Your task to perform on an android device: Do I have any events tomorrow? Image 0: 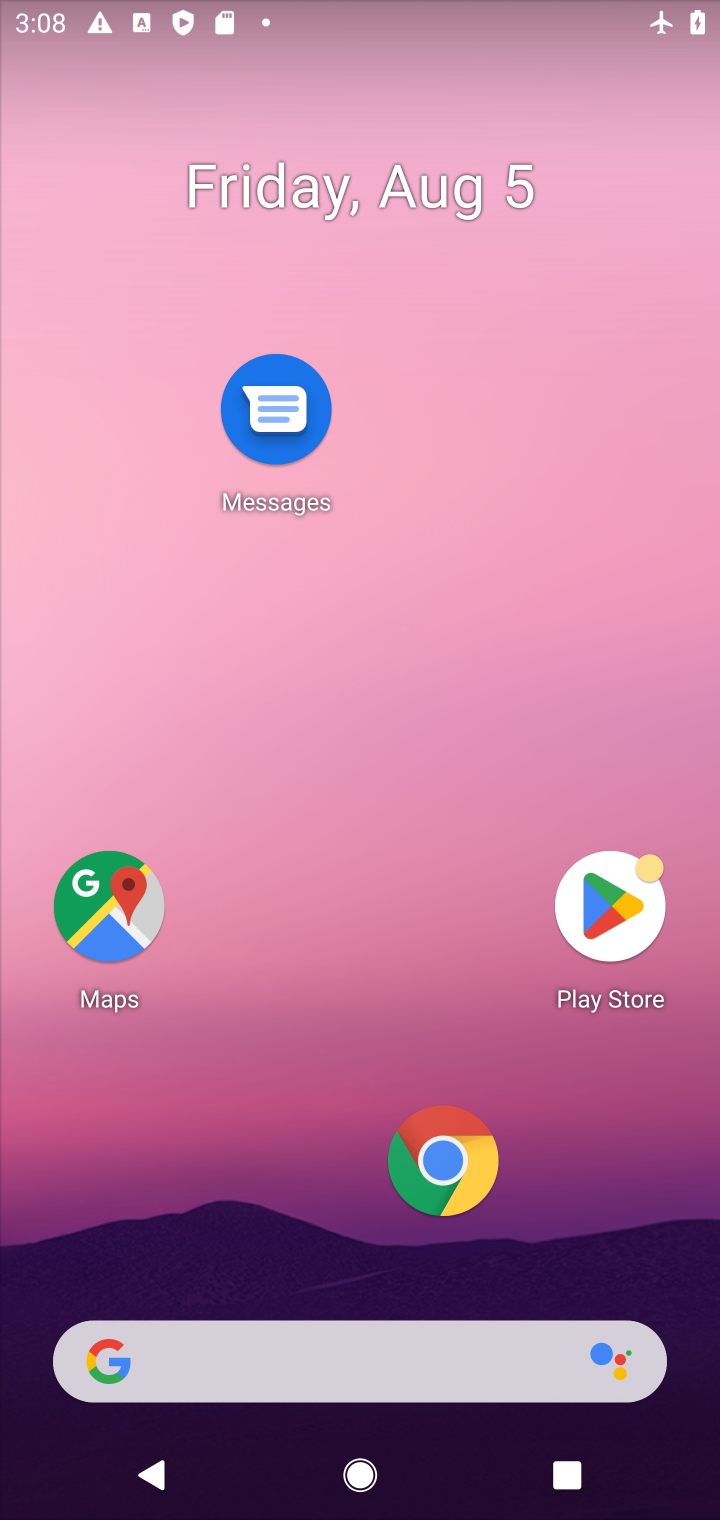
Step 0: drag from (362, 1112) to (479, 327)
Your task to perform on an android device: Do I have any events tomorrow? Image 1: 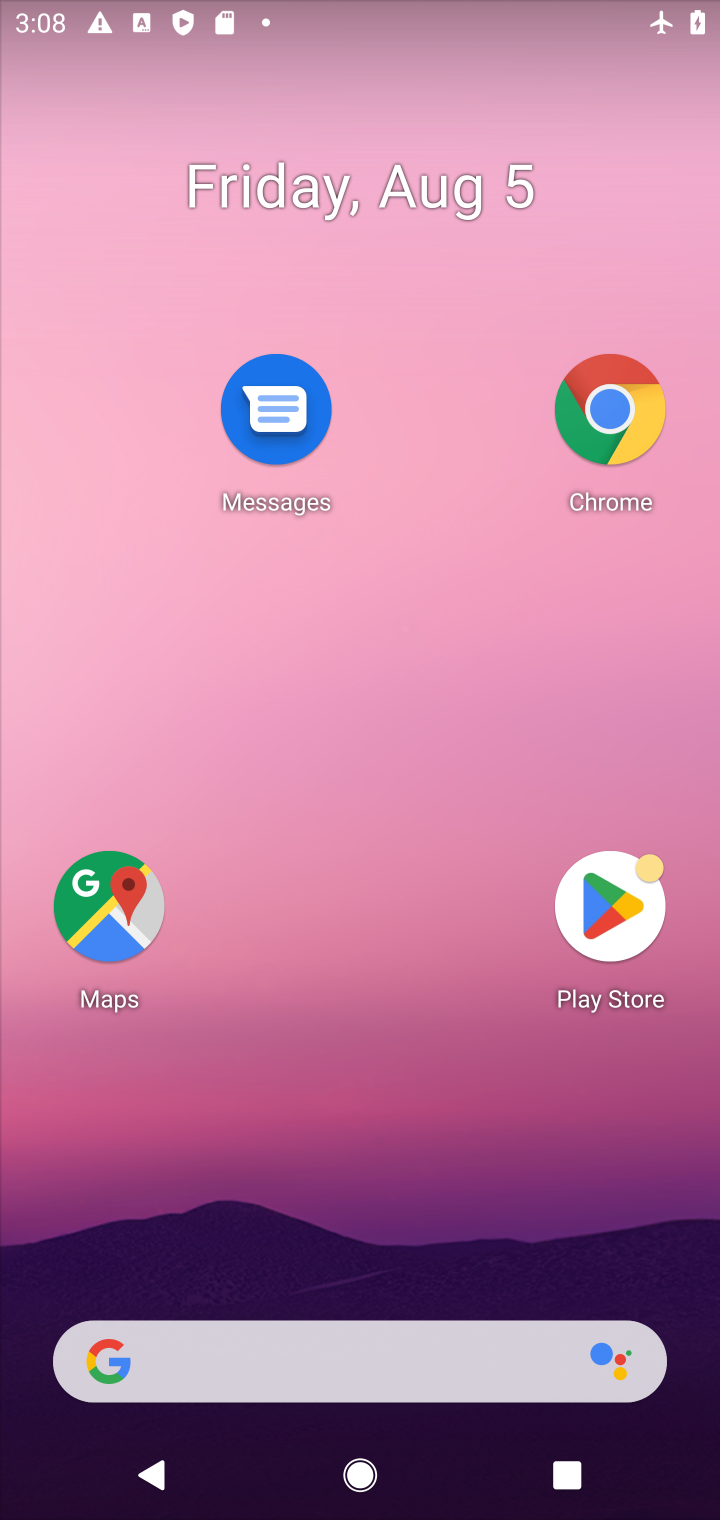
Step 1: drag from (437, 910) to (492, 364)
Your task to perform on an android device: Do I have any events tomorrow? Image 2: 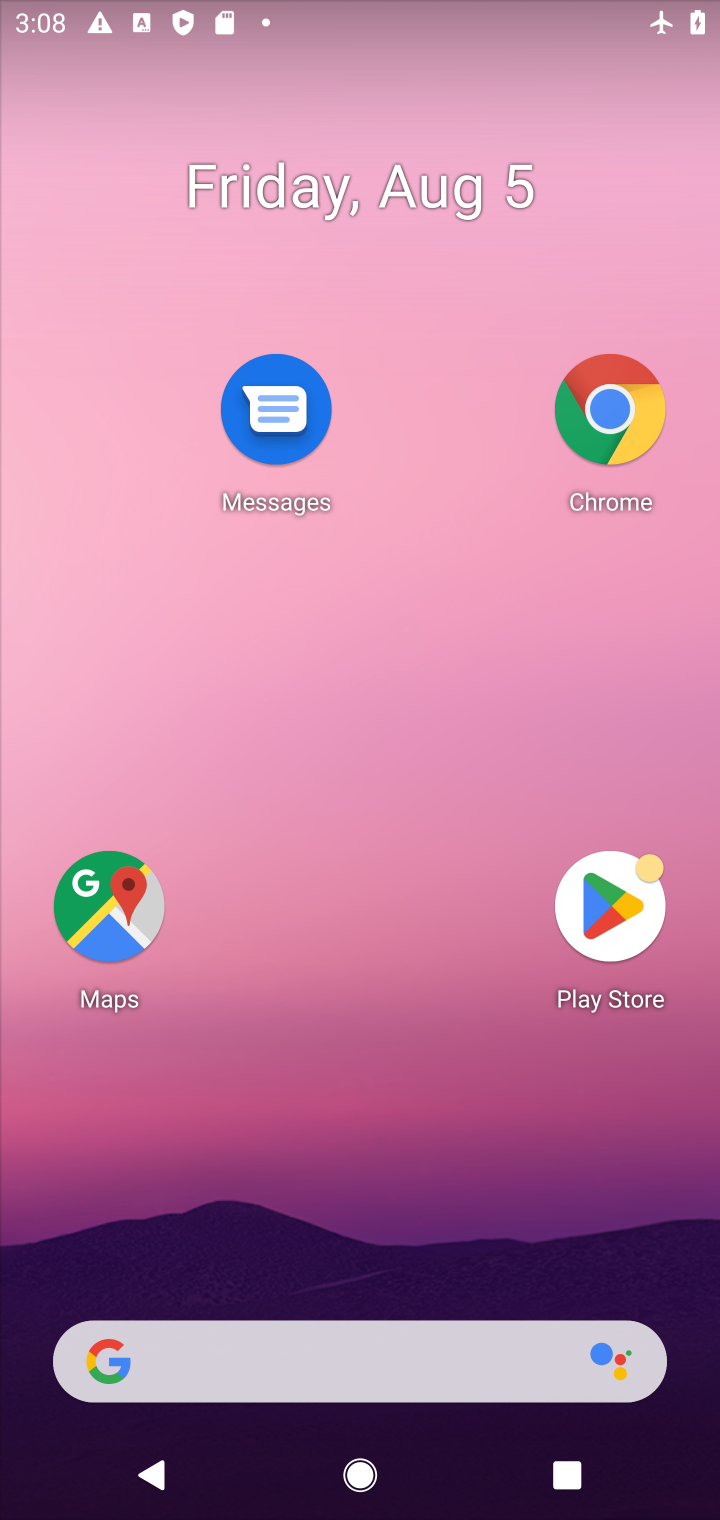
Step 2: drag from (372, 977) to (415, 258)
Your task to perform on an android device: Do I have any events tomorrow? Image 3: 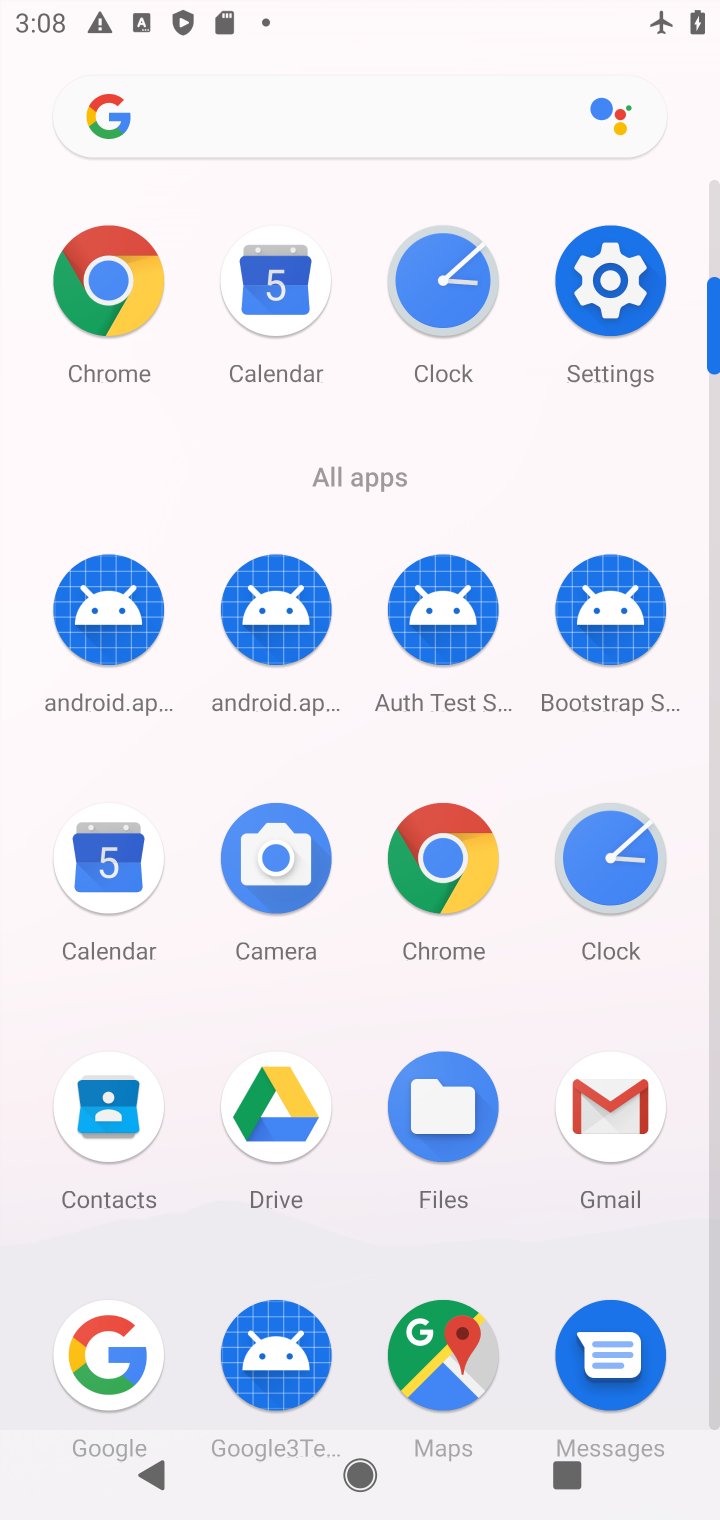
Step 3: click (146, 882)
Your task to perform on an android device: Do I have any events tomorrow? Image 4: 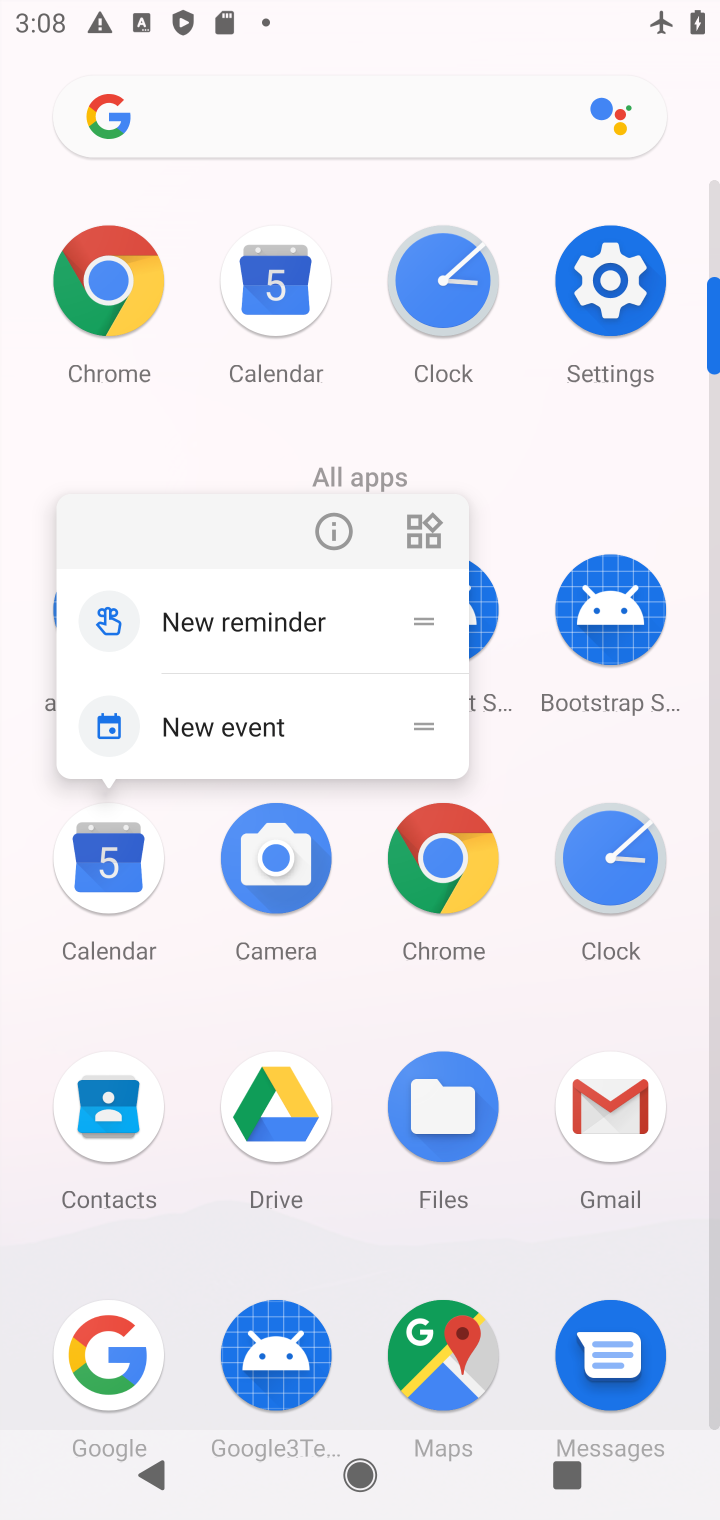
Step 4: click (146, 882)
Your task to perform on an android device: Do I have any events tomorrow? Image 5: 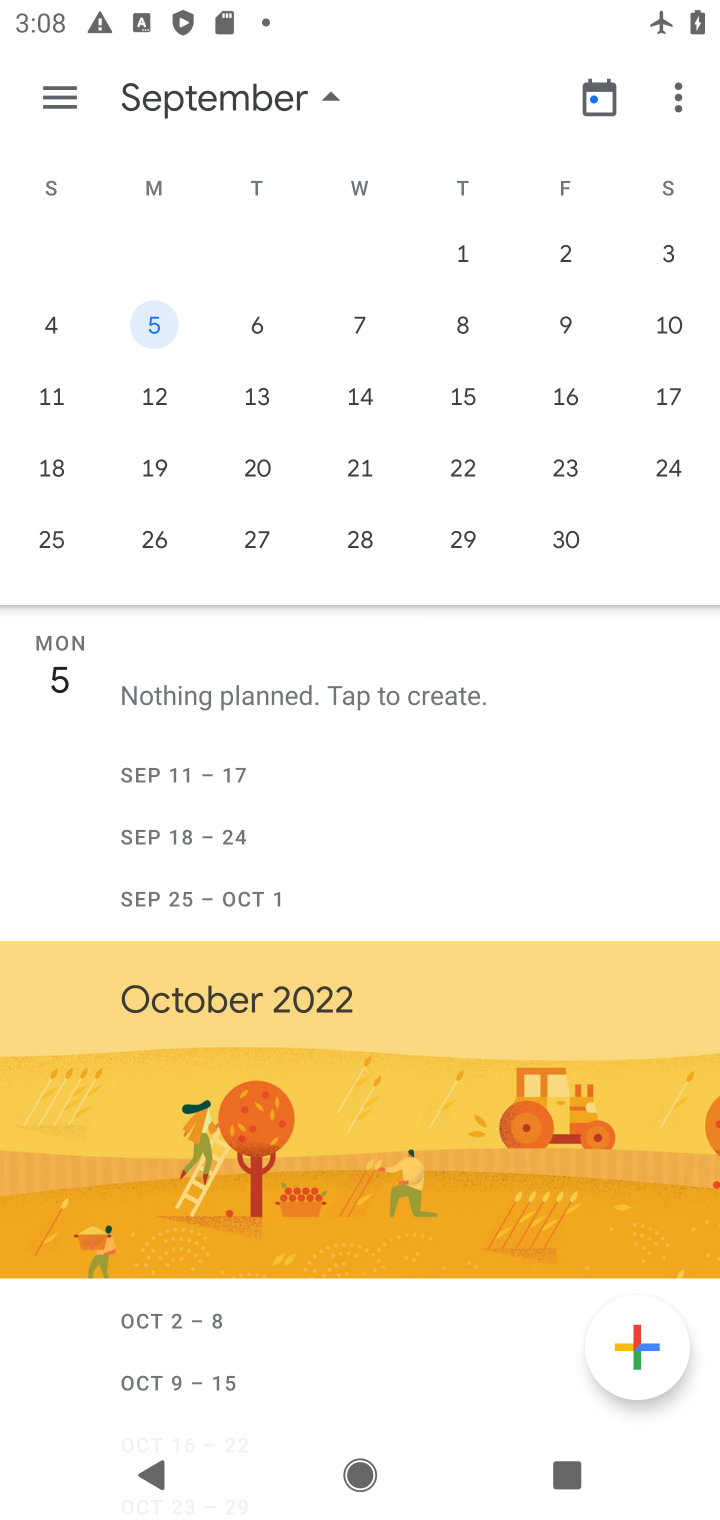
Step 5: task complete